Your task to perform on an android device: turn pop-ups on in chrome Image 0: 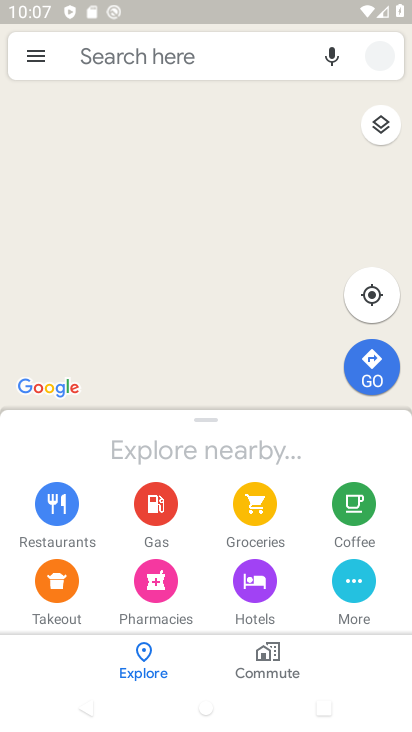
Step 0: press home button
Your task to perform on an android device: turn pop-ups on in chrome Image 1: 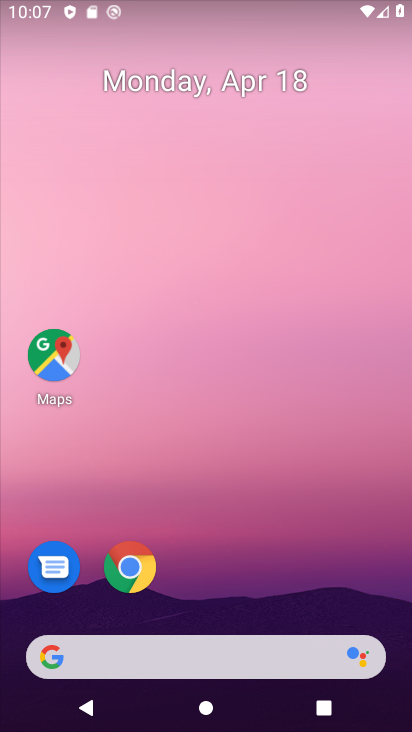
Step 1: click (136, 558)
Your task to perform on an android device: turn pop-ups on in chrome Image 2: 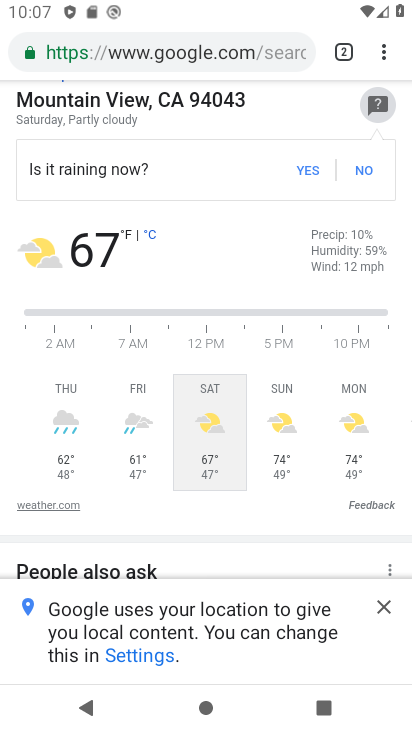
Step 2: click (386, 46)
Your task to perform on an android device: turn pop-ups on in chrome Image 3: 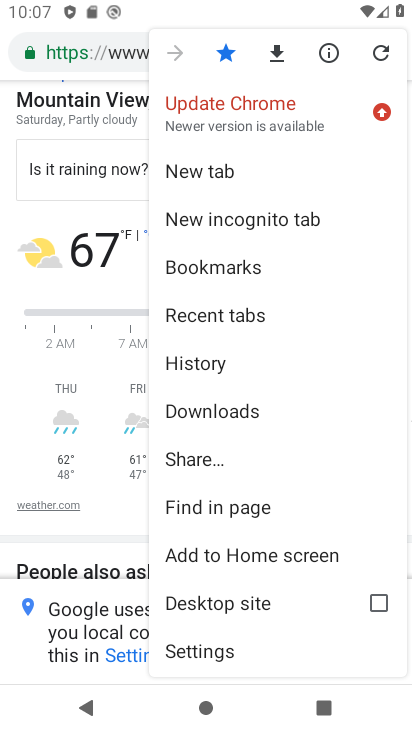
Step 3: click (207, 654)
Your task to perform on an android device: turn pop-ups on in chrome Image 4: 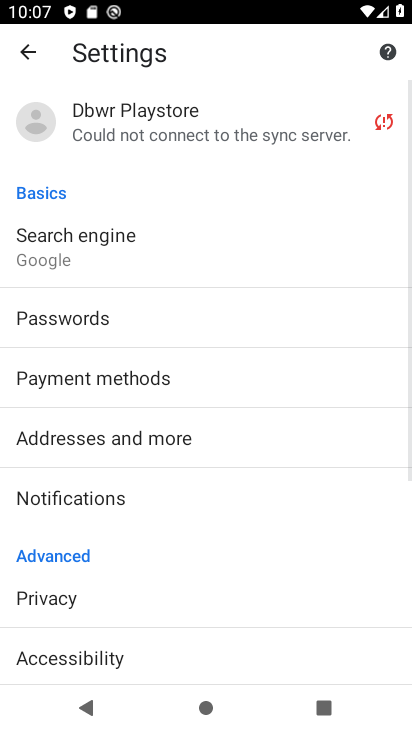
Step 4: drag from (161, 618) to (174, 247)
Your task to perform on an android device: turn pop-ups on in chrome Image 5: 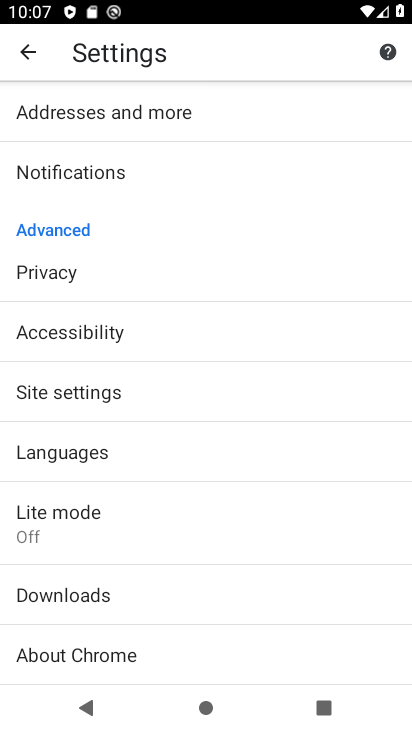
Step 5: click (66, 385)
Your task to perform on an android device: turn pop-ups on in chrome Image 6: 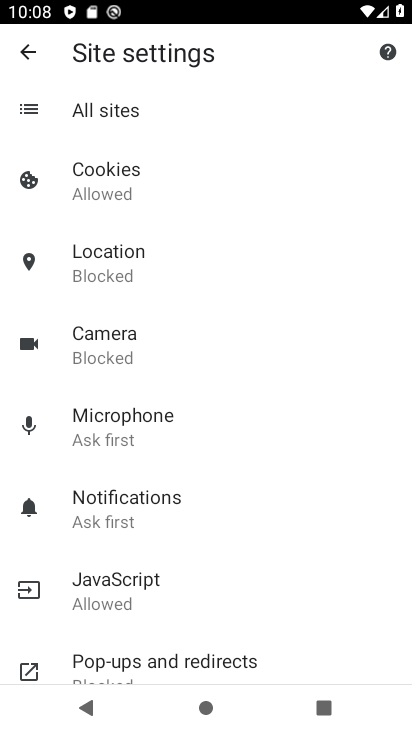
Step 6: drag from (114, 526) to (146, 230)
Your task to perform on an android device: turn pop-ups on in chrome Image 7: 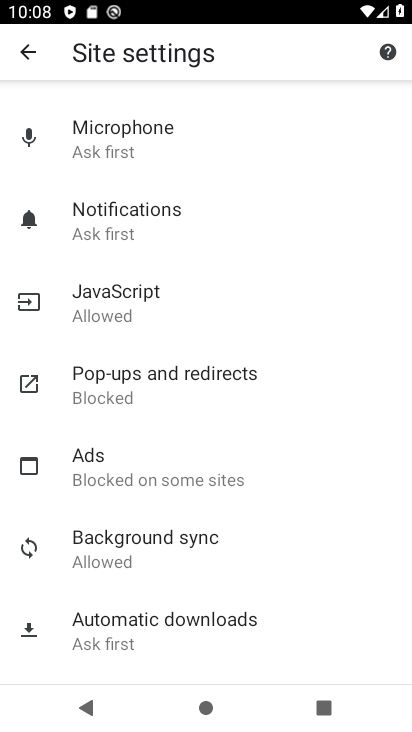
Step 7: click (143, 380)
Your task to perform on an android device: turn pop-ups on in chrome Image 8: 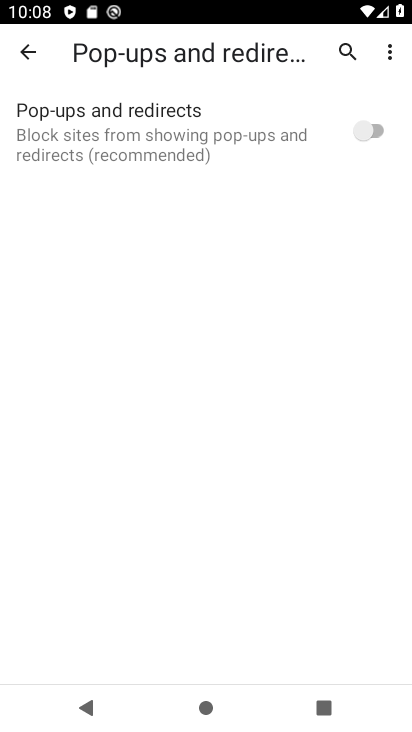
Step 8: click (365, 126)
Your task to perform on an android device: turn pop-ups on in chrome Image 9: 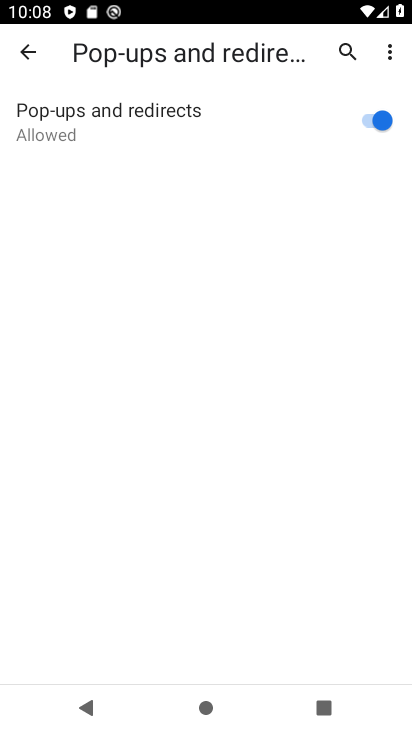
Step 9: task complete